Your task to perform on an android device: change notification settings in the gmail app Image 0: 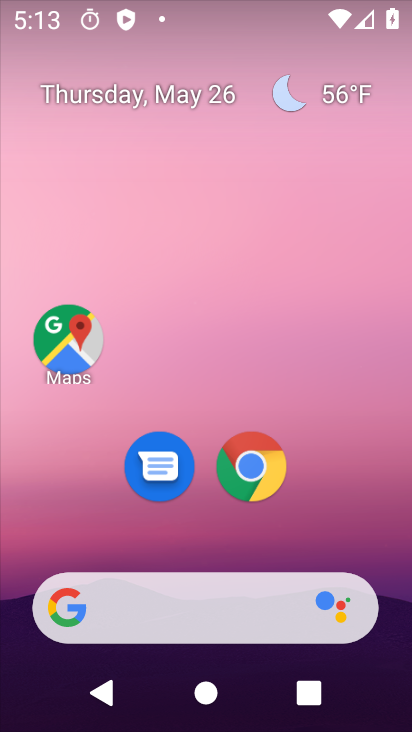
Step 0: drag from (315, 529) to (359, 100)
Your task to perform on an android device: change notification settings in the gmail app Image 1: 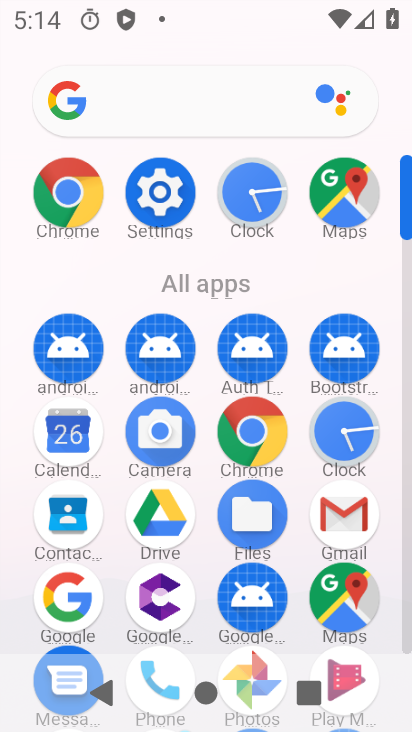
Step 1: click (157, 189)
Your task to perform on an android device: change notification settings in the gmail app Image 2: 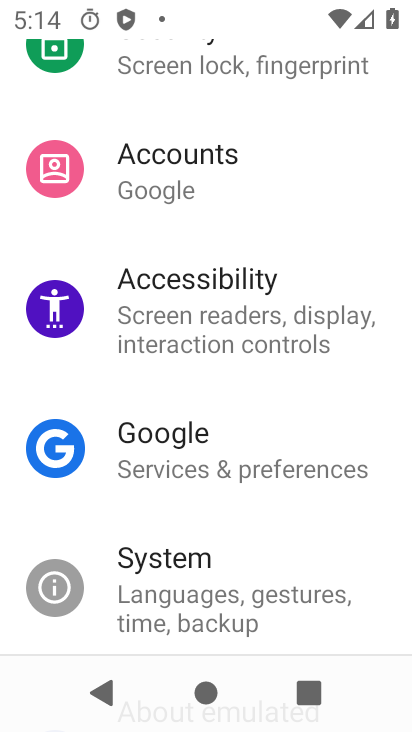
Step 2: press home button
Your task to perform on an android device: change notification settings in the gmail app Image 3: 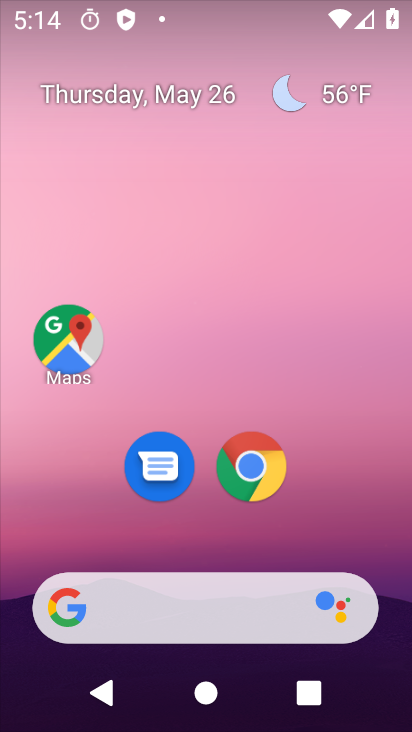
Step 3: drag from (314, 509) to (330, 107)
Your task to perform on an android device: change notification settings in the gmail app Image 4: 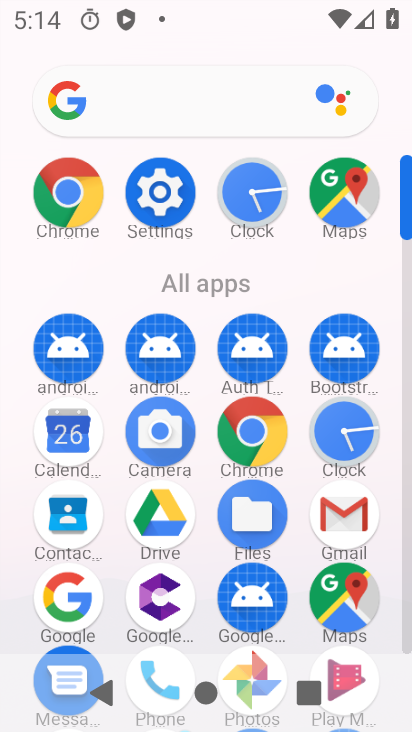
Step 4: click (354, 517)
Your task to perform on an android device: change notification settings in the gmail app Image 5: 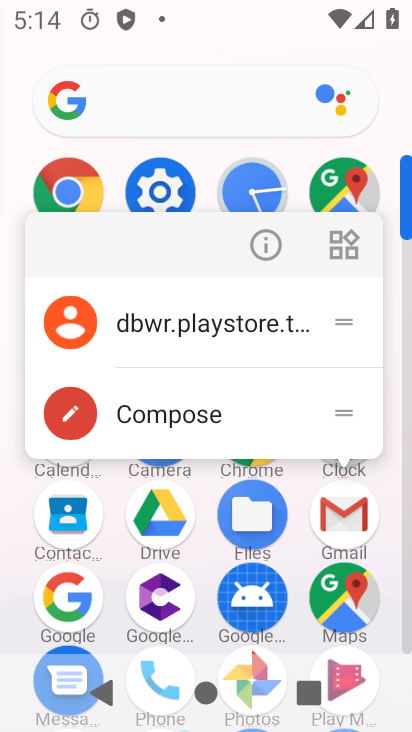
Step 5: click (262, 237)
Your task to perform on an android device: change notification settings in the gmail app Image 6: 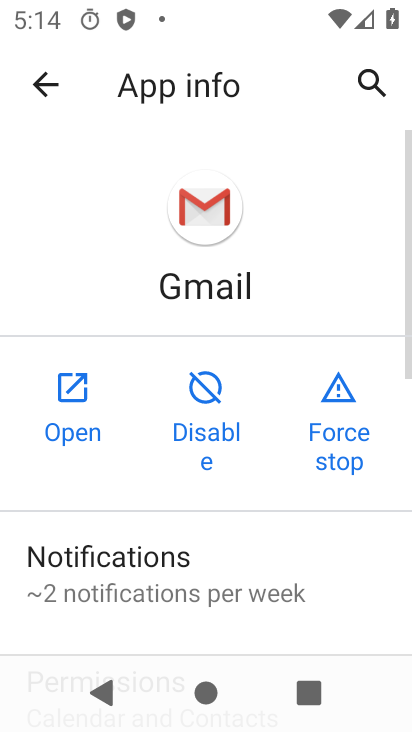
Step 6: click (169, 579)
Your task to perform on an android device: change notification settings in the gmail app Image 7: 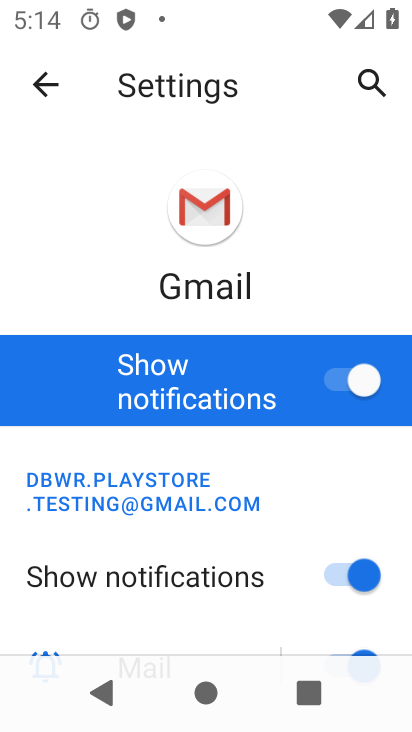
Step 7: click (338, 372)
Your task to perform on an android device: change notification settings in the gmail app Image 8: 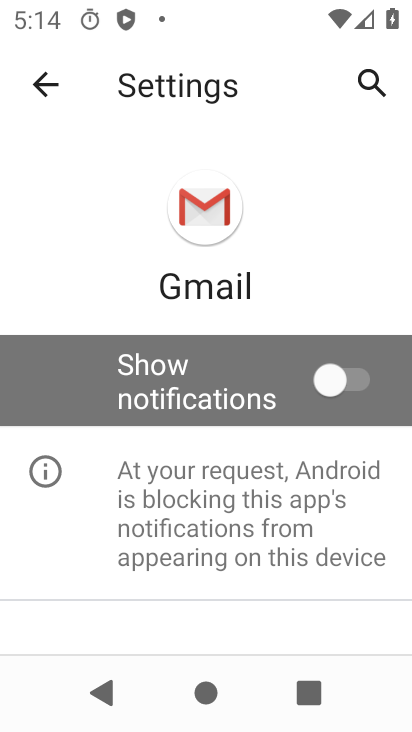
Step 8: task complete